Your task to perform on an android device: toggle notification dots Image 0: 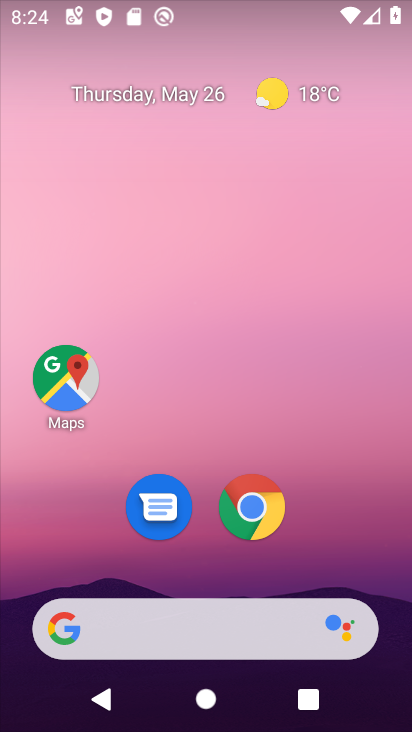
Step 0: press home button
Your task to perform on an android device: toggle notification dots Image 1: 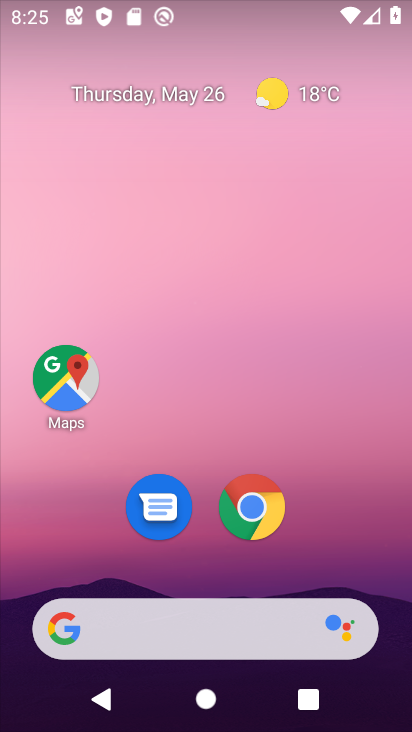
Step 1: drag from (318, 644) to (190, 163)
Your task to perform on an android device: toggle notification dots Image 2: 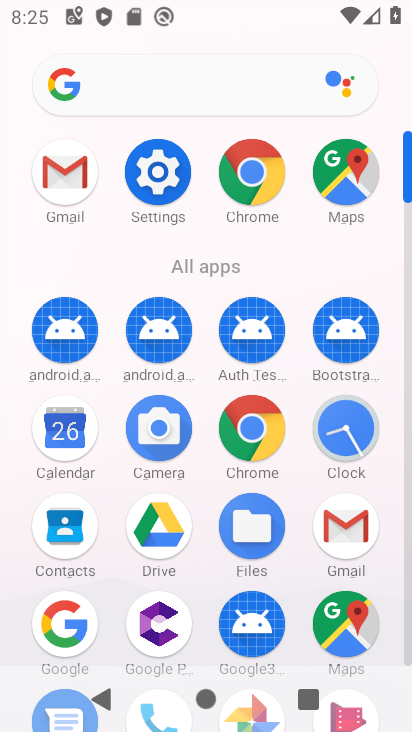
Step 2: click (145, 174)
Your task to perform on an android device: toggle notification dots Image 3: 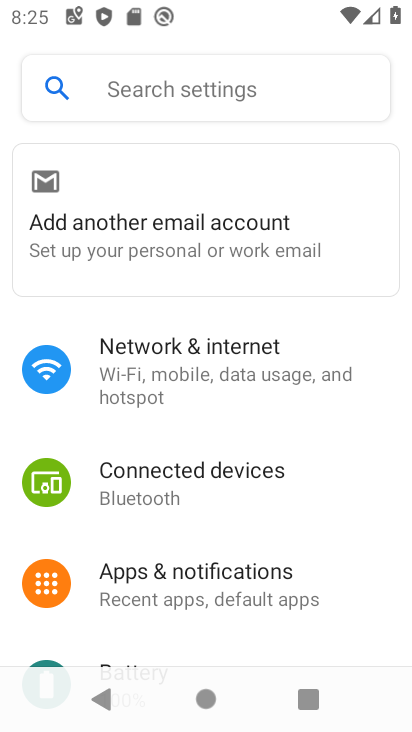
Step 3: click (169, 75)
Your task to perform on an android device: toggle notification dots Image 4: 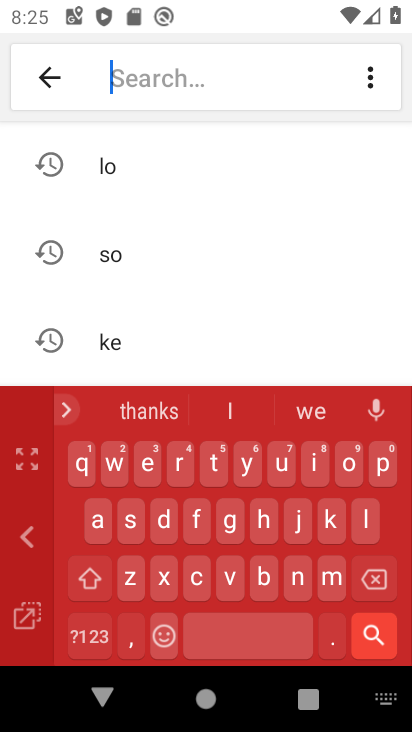
Step 4: click (161, 522)
Your task to perform on an android device: toggle notification dots Image 5: 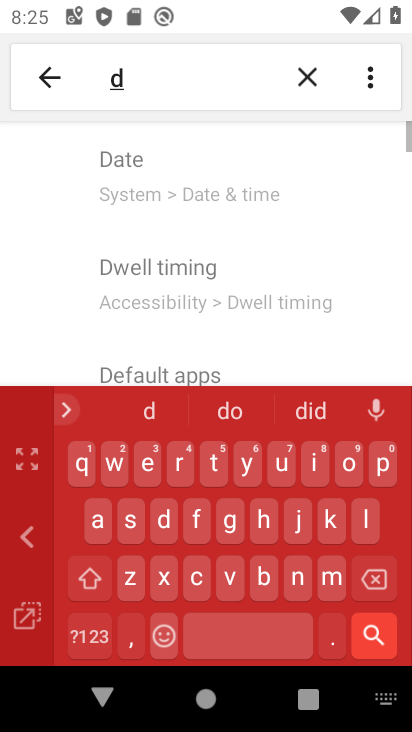
Step 5: click (350, 468)
Your task to perform on an android device: toggle notification dots Image 6: 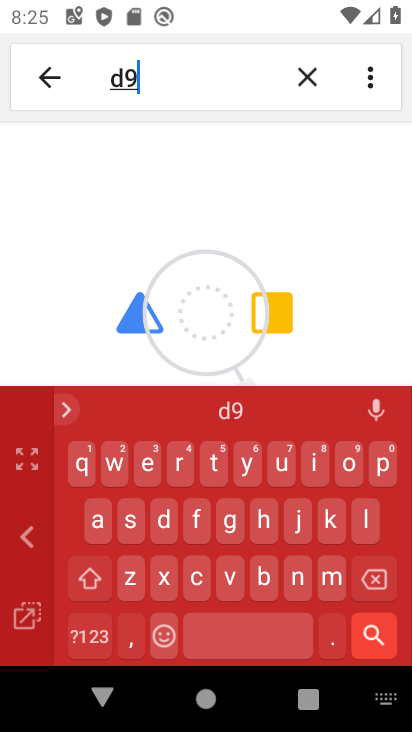
Step 6: click (217, 472)
Your task to perform on an android device: toggle notification dots Image 7: 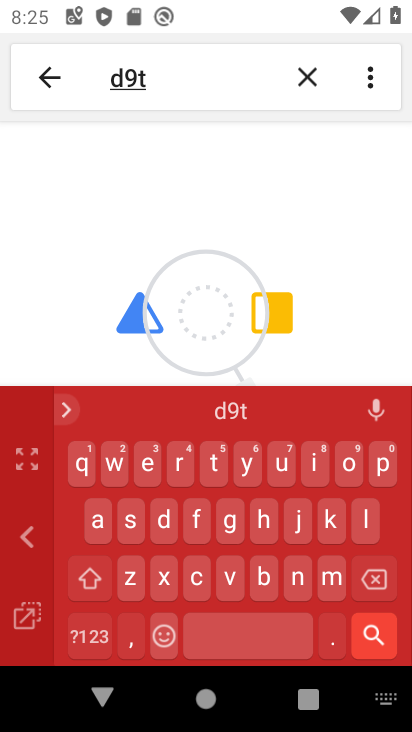
Step 7: click (26, 475)
Your task to perform on an android device: toggle notification dots Image 8: 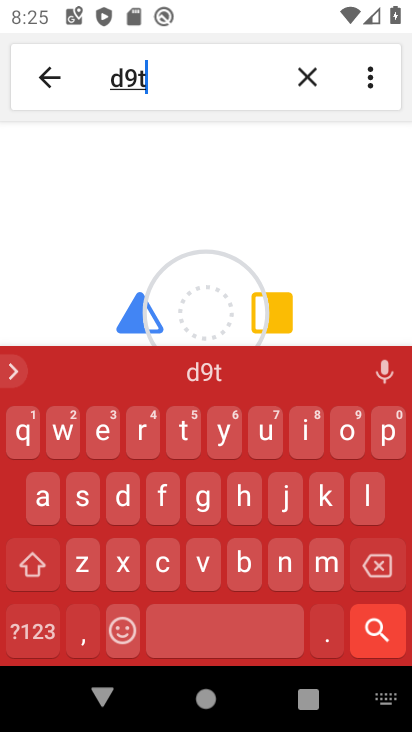
Step 8: click (376, 582)
Your task to perform on an android device: toggle notification dots Image 9: 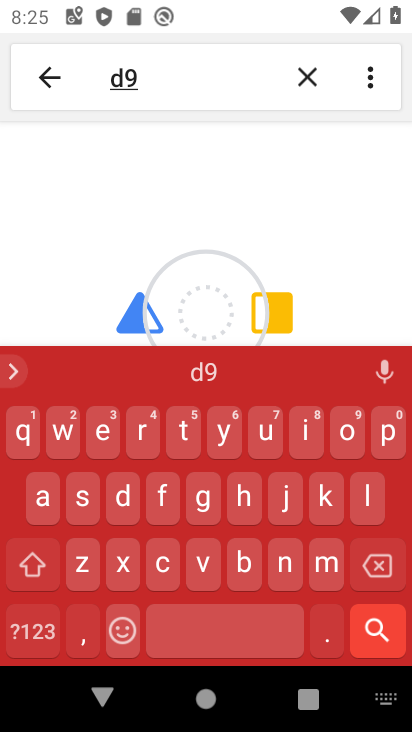
Step 9: click (379, 576)
Your task to perform on an android device: toggle notification dots Image 10: 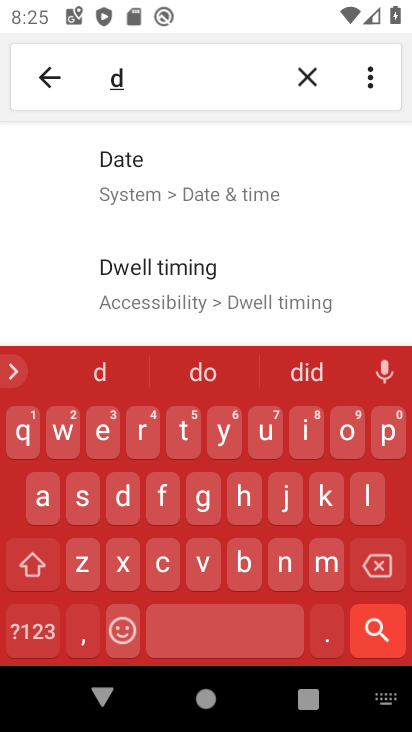
Step 10: click (338, 449)
Your task to perform on an android device: toggle notification dots Image 11: 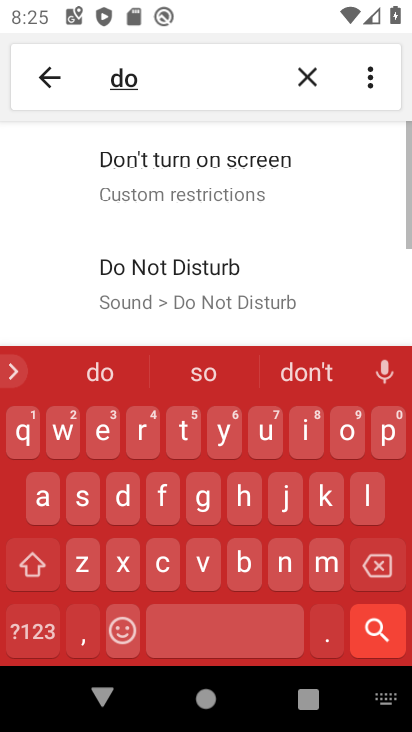
Step 11: click (187, 445)
Your task to perform on an android device: toggle notification dots Image 12: 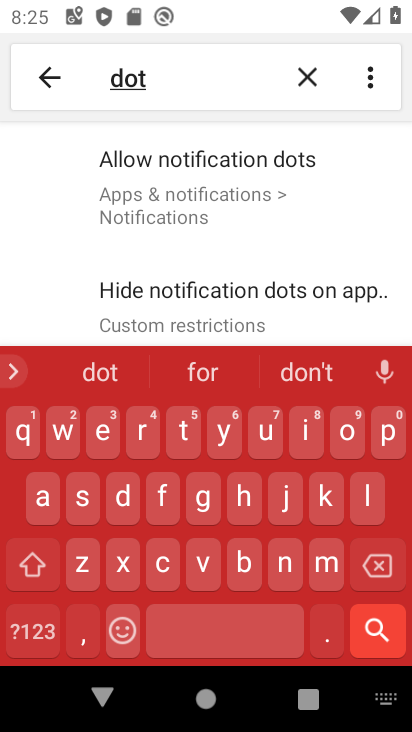
Step 12: click (184, 171)
Your task to perform on an android device: toggle notification dots Image 13: 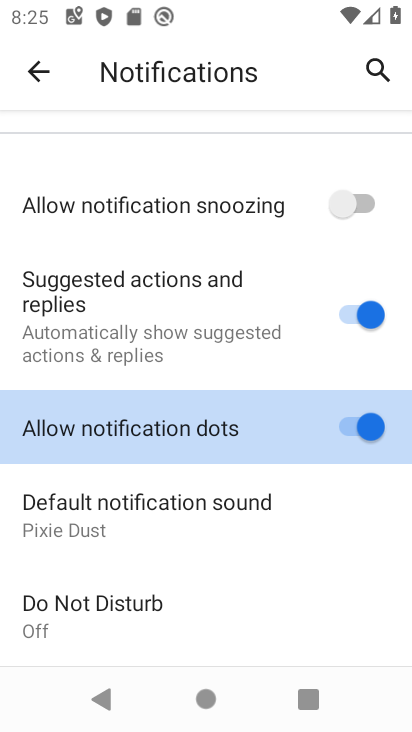
Step 13: task complete